Your task to perform on an android device: open a bookmark in the chrome app Image 0: 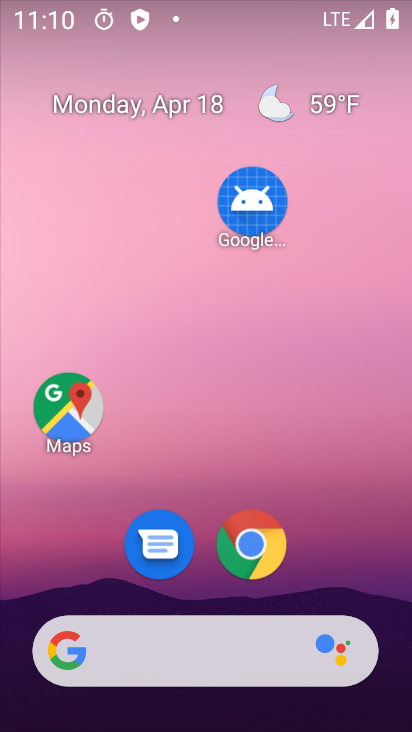
Step 0: drag from (255, 639) to (242, 151)
Your task to perform on an android device: open a bookmark in the chrome app Image 1: 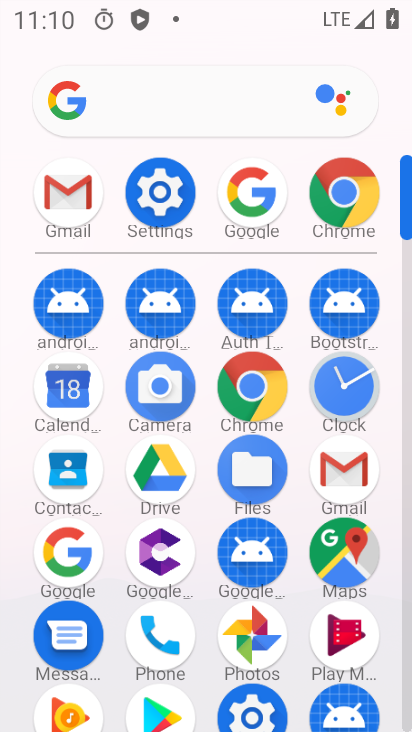
Step 1: click (246, 404)
Your task to perform on an android device: open a bookmark in the chrome app Image 2: 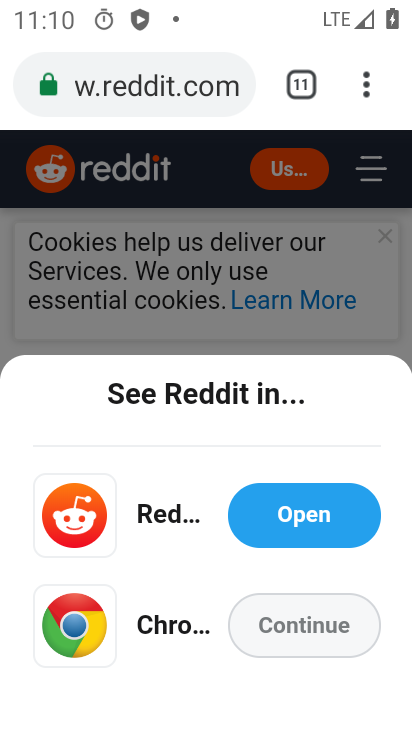
Step 2: click (372, 84)
Your task to perform on an android device: open a bookmark in the chrome app Image 3: 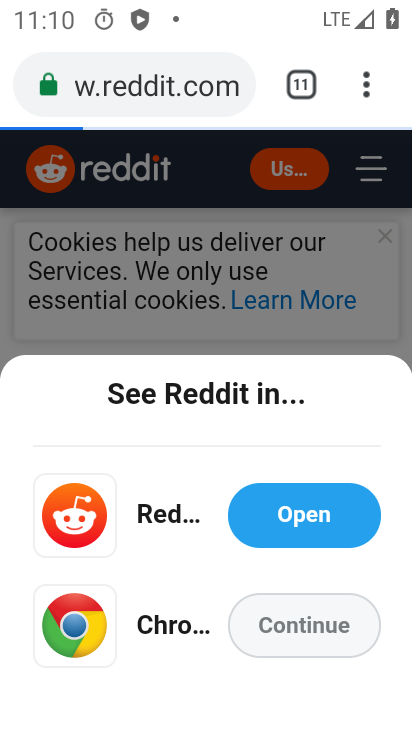
Step 3: click (369, 86)
Your task to perform on an android device: open a bookmark in the chrome app Image 4: 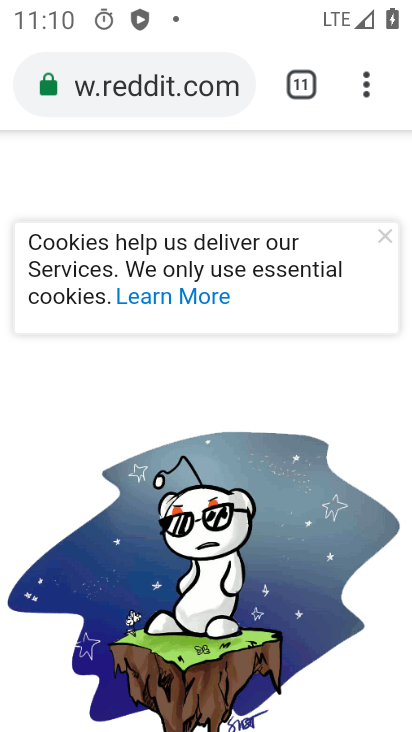
Step 4: click (354, 84)
Your task to perform on an android device: open a bookmark in the chrome app Image 5: 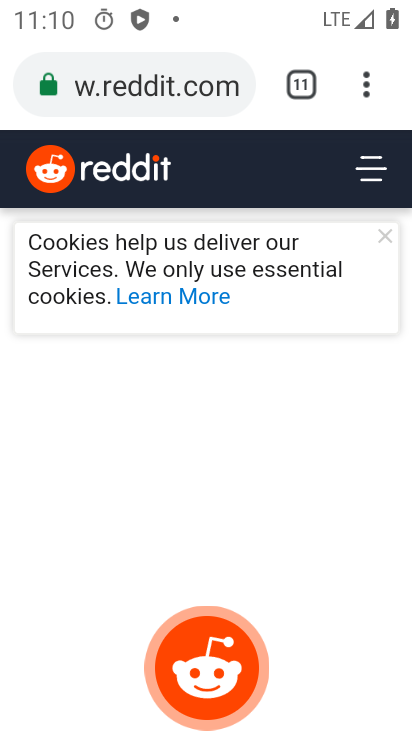
Step 5: click (354, 84)
Your task to perform on an android device: open a bookmark in the chrome app Image 6: 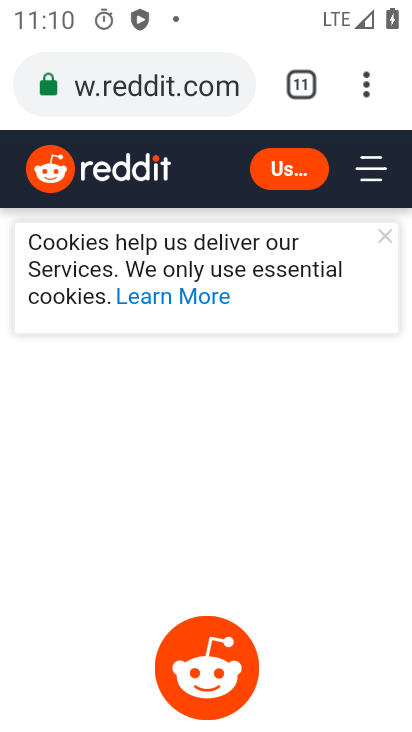
Step 6: click (354, 84)
Your task to perform on an android device: open a bookmark in the chrome app Image 7: 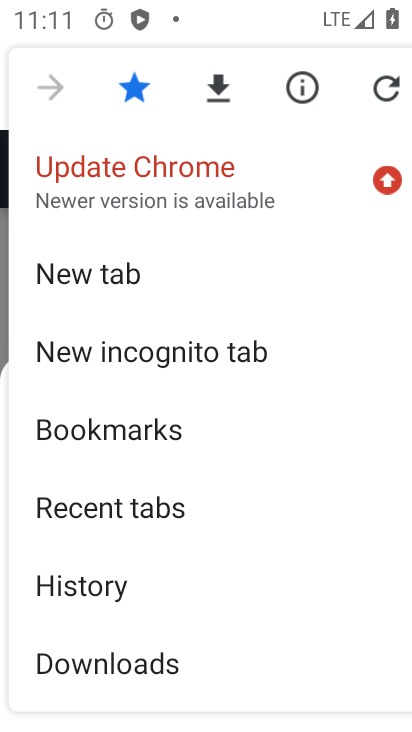
Step 7: click (190, 433)
Your task to perform on an android device: open a bookmark in the chrome app Image 8: 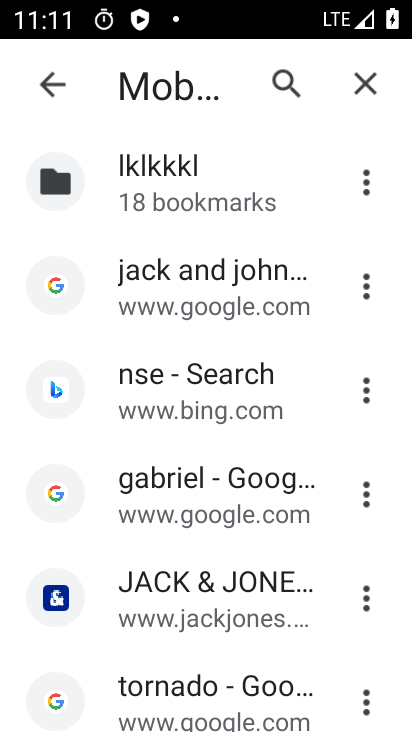
Step 8: task complete